Your task to perform on an android device: Go to notification settings Image 0: 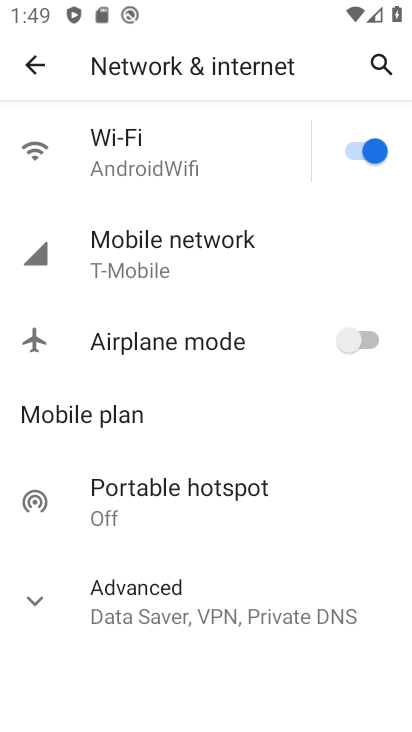
Step 0: press home button
Your task to perform on an android device: Go to notification settings Image 1: 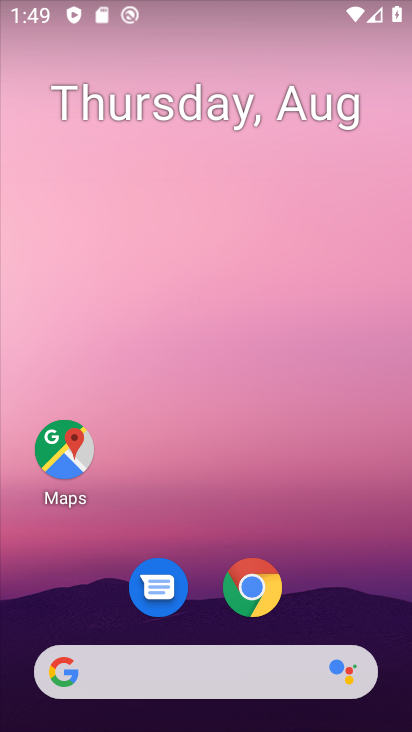
Step 1: drag from (191, 503) to (72, 7)
Your task to perform on an android device: Go to notification settings Image 2: 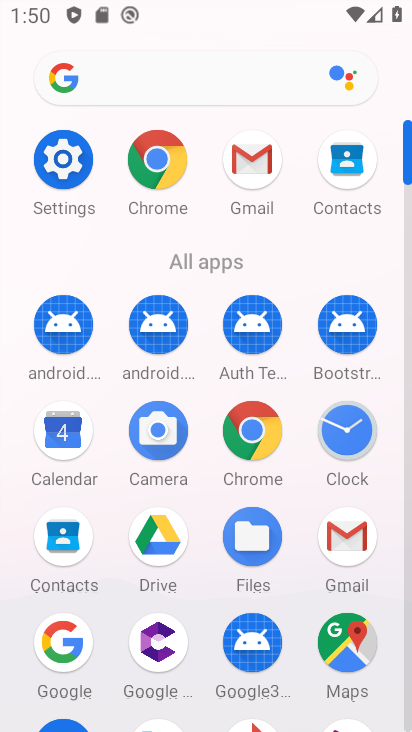
Step 2: click (64, 158)
Your task to perform on an android device: Go to notification settings Image 3: 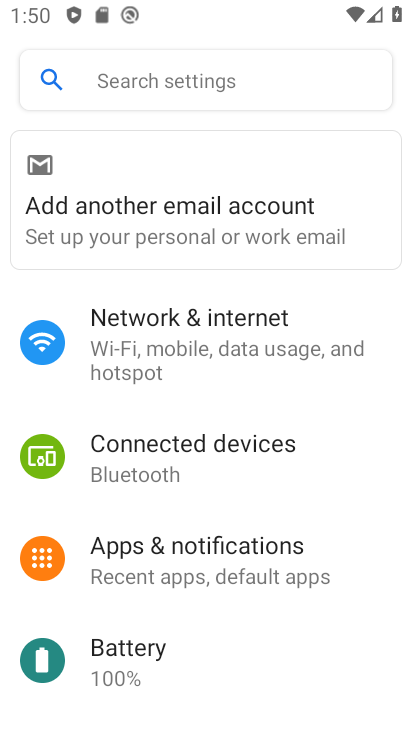
Step 3: click (200, 545)
Your task to perform on an android device: Go to notification settings Image 4: 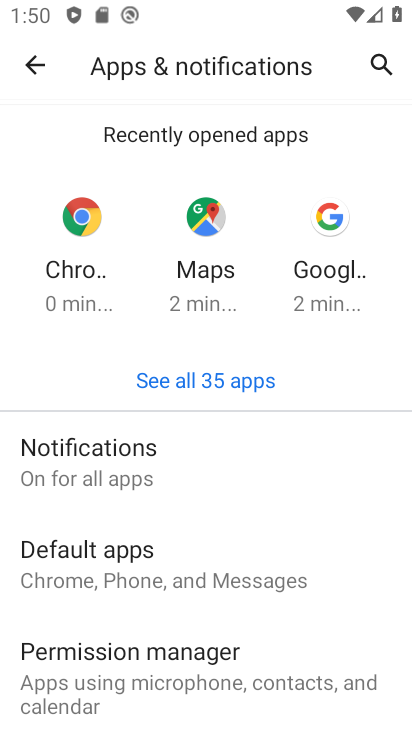
Step 4: task complete